Your task to perform on an android device: Open the stopwatch Image 0: 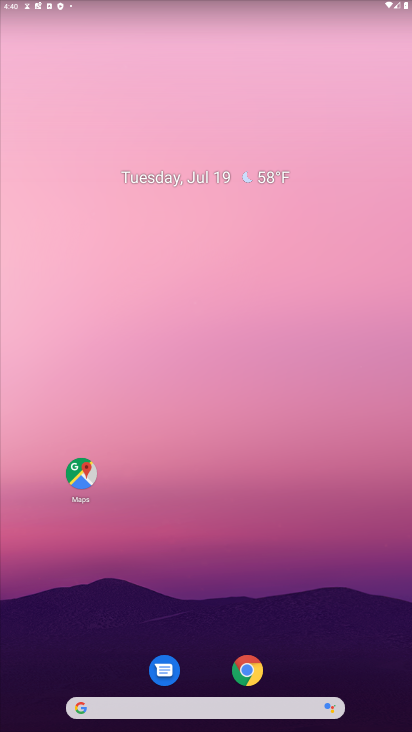
Step 0: drag from (193, 701) to (183, 42)
Your task to perform on an android device: Open the stopwatch Image 1: 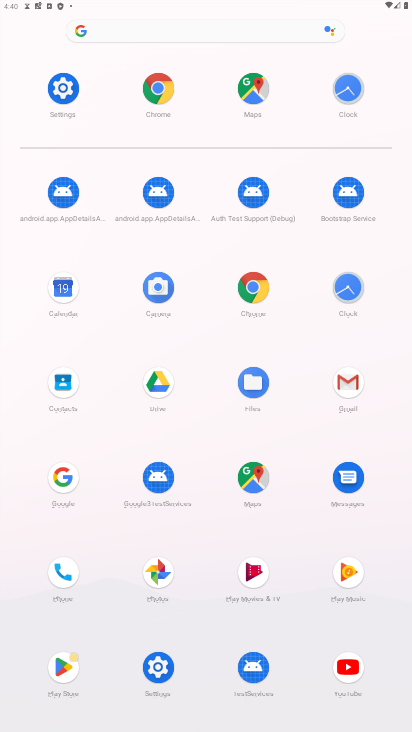
Step 1: click (349, 289)
Your task to perform on an android device: Open the stopwatch Image 2: 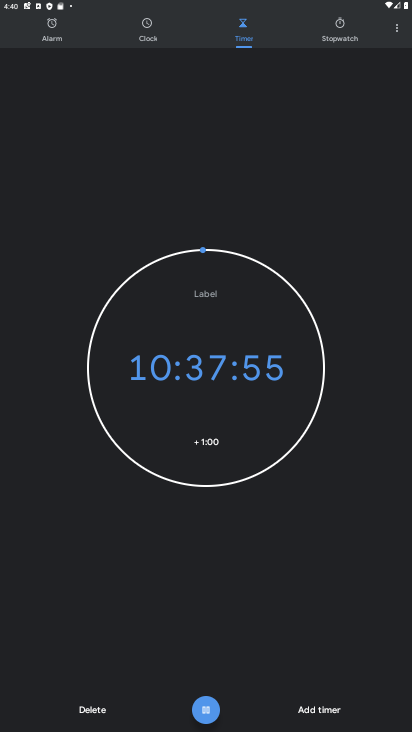
Step 2: click (337, 32)
Your task to perform on an android device: Open the stopwatch Image 3: 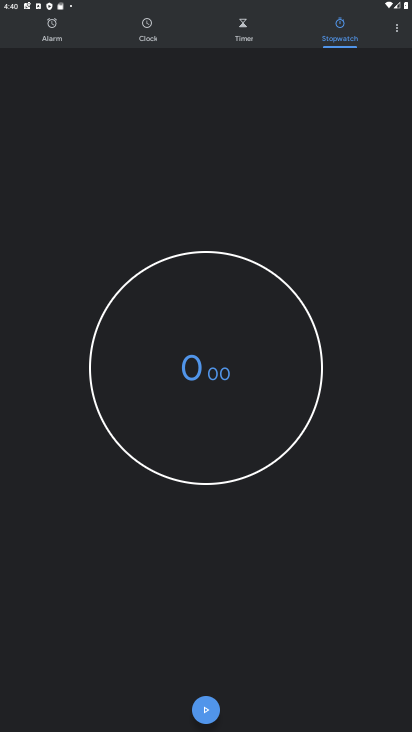
Step 3: click (201, 715)
Your task to perform on an android device: Open the stopwatch Image 4: 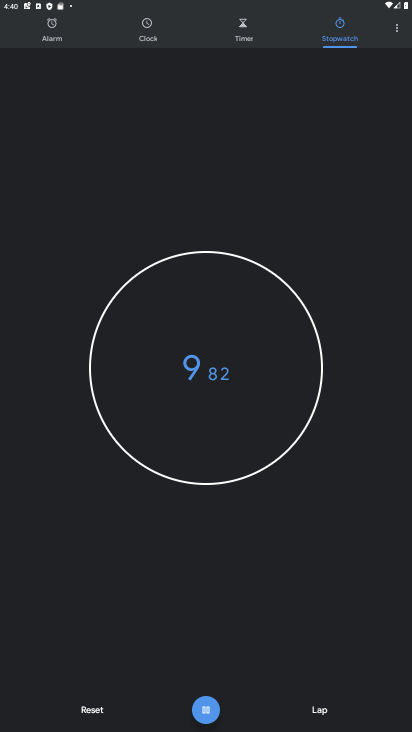
Step 4: task complete